Your task to perform on an android device: Open Google Maps Image 0: 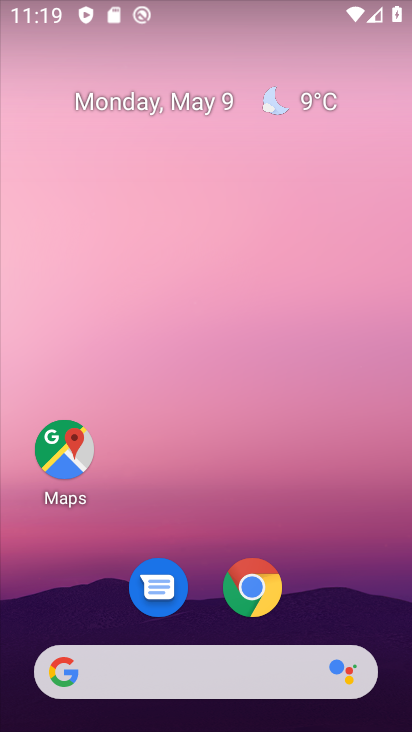
Step 0: click (58, 443)
Your task to perform on an android device: Open Google Maps Image 1: 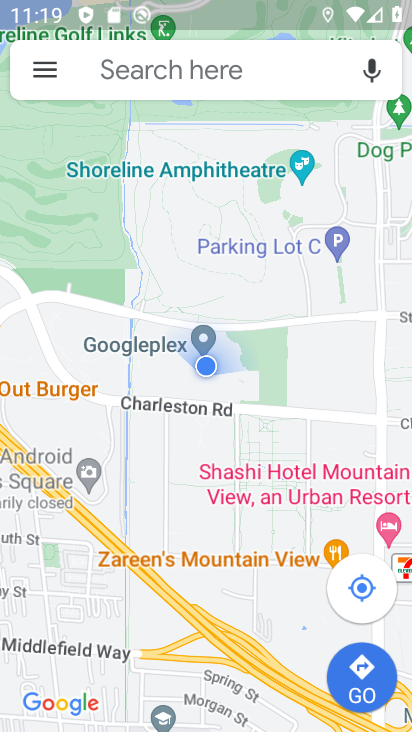
Step 1: task complete